Your task to perform on an android device: uninstall "Pandora - Music & Podcasts" Image 0: 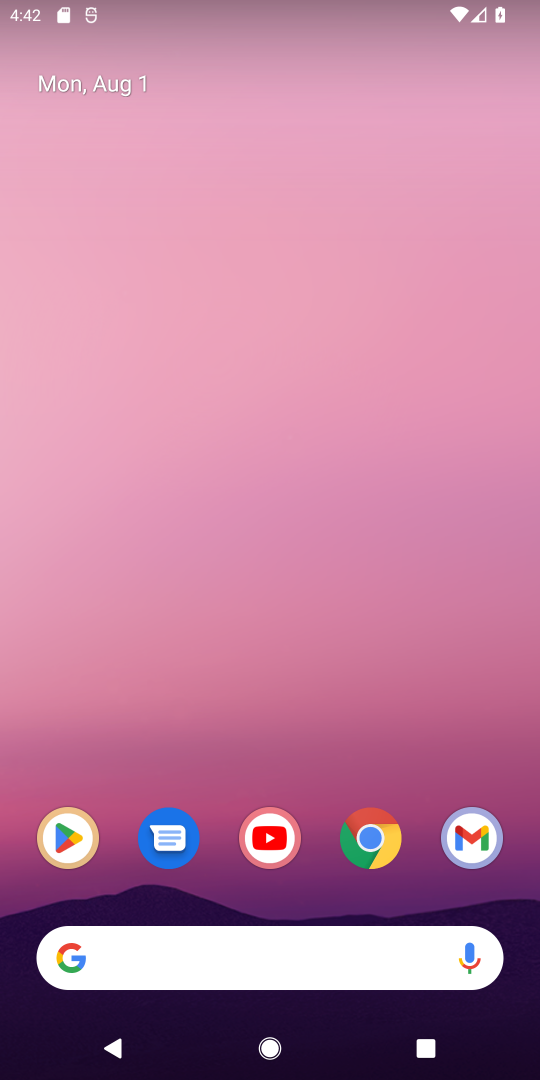
Step 0: click (66, 853)
Your task to perform on an android device: uninstall "Pandora - Music & Podcasts" Image 1: 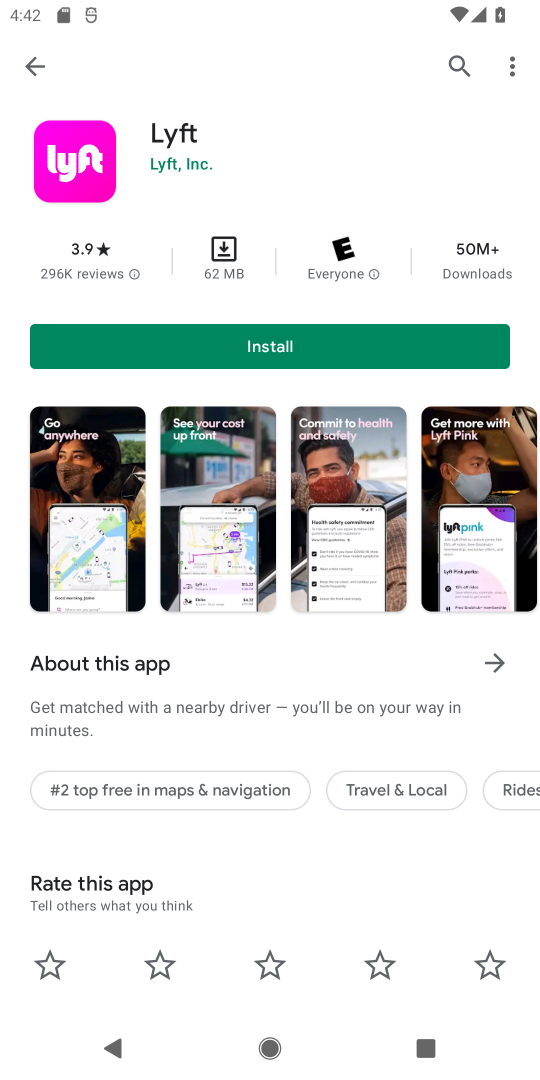
Step 1: click (461, 84)
Your task to perform on an android device: uninstall "Pandora - Music & Podcasts" Image 2: 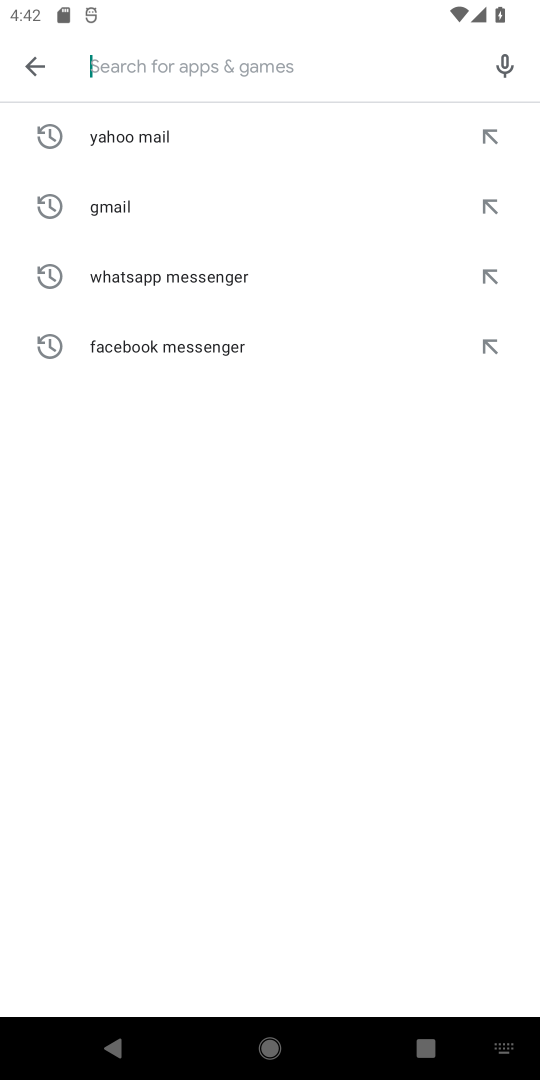
Step 2: type "Pandora - Music & Podcasts"
Your task to perform on an android device: uninstall "Pandora - Music & Podcasts" Image 3: 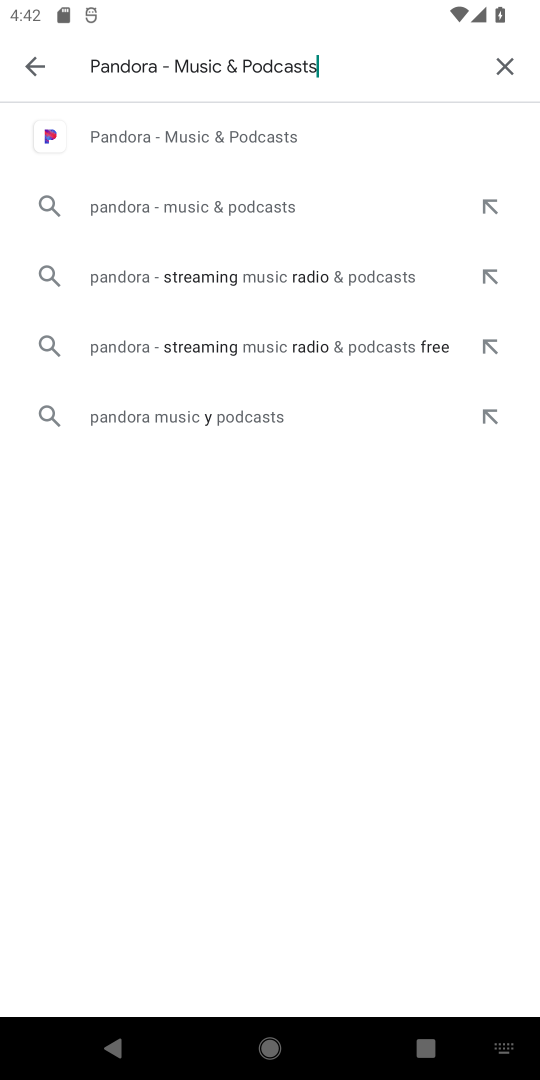
Step 3: click (195, 133)
Your task to perform on an android device: uninstall "Pandora - Music & Podcasts" Image 4: 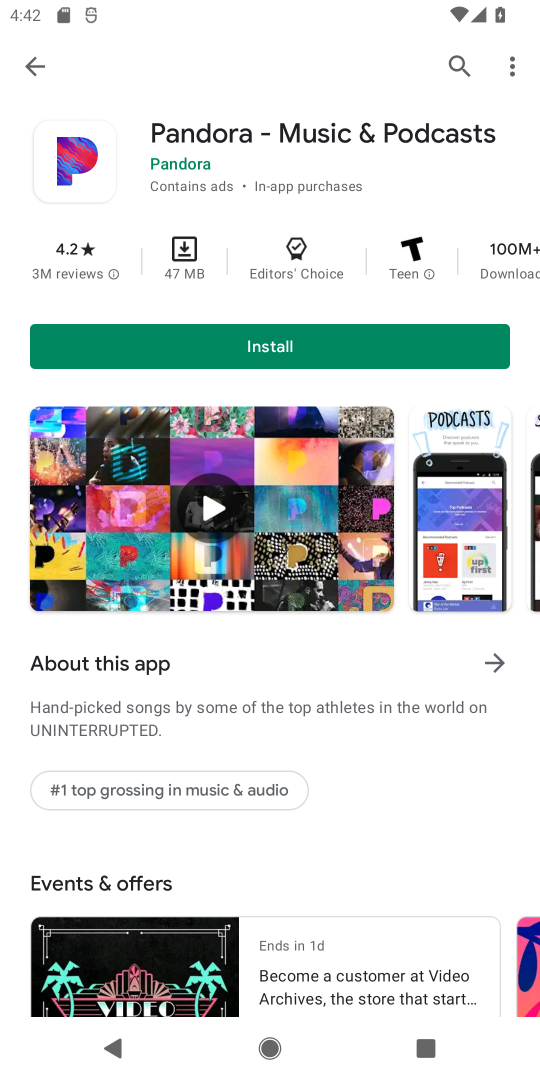
Step 4: task complete